Your task to perform on an android device: turn off javascript in the chrome app Image 0: 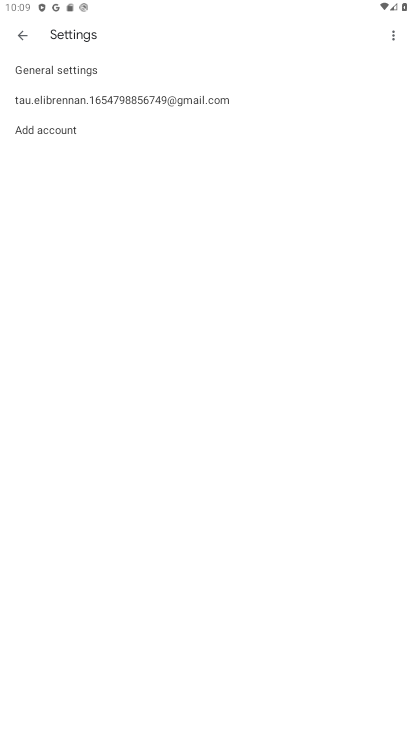
Step 0: press home button
Your task to perform on an android device: turn off javascript in the chrome app Image 1: 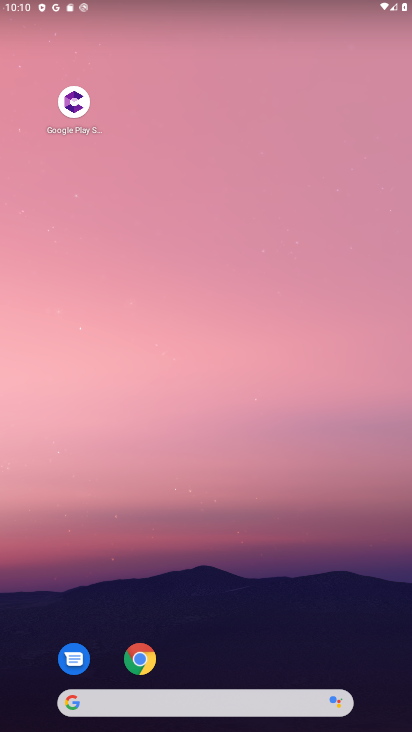
Step 1: drag from (221, 686) to (230, 161)
Your task to perform on an android device: turn off javascript in the chrome app Image 2: 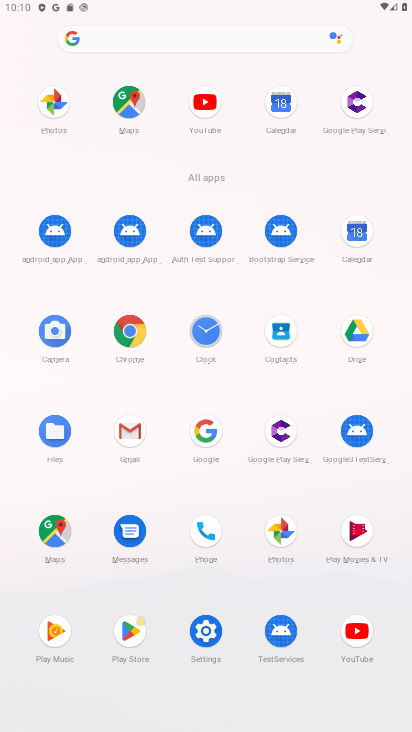
Step 2: click (117, 338)
Your task to perform on an android device: turn off javascript in the chrome app Image 3: 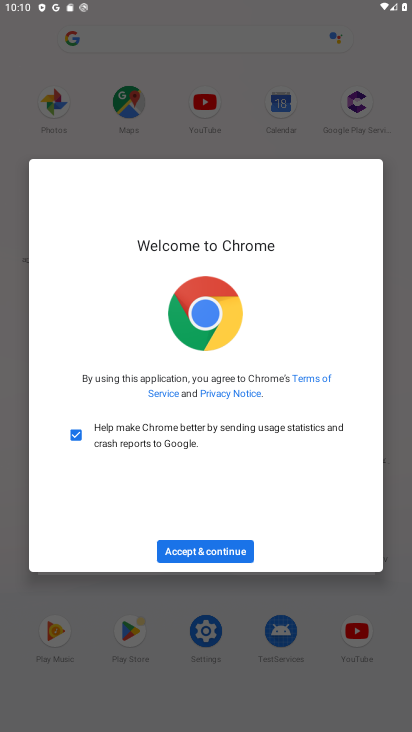
Step 3: click (211, 552)
Your task to perform on an android device: turn off javascript in the chrome app Image 4: 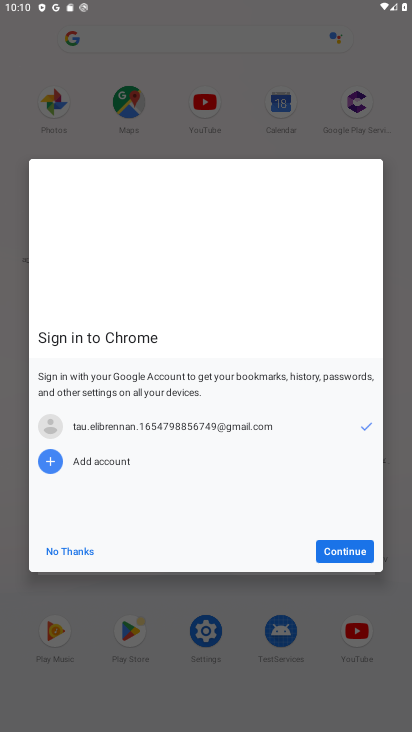
Step 4: click (347, 553)
Your task to perform on an android device: turn off javascript in the chrome app Image 5: 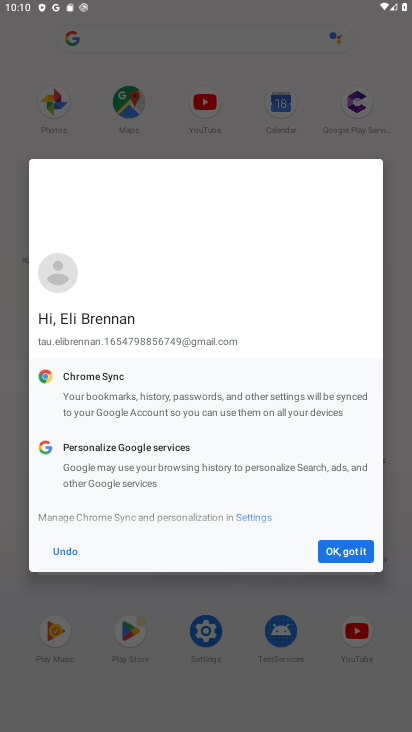
Step 5: click (348, 554)
Your task to perform on an android device: turn off javascript in the chrome app Image 6: 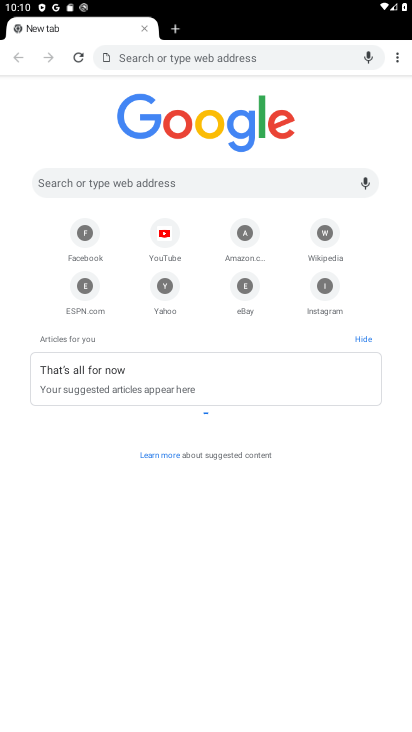
Step 6: click (399, 63)
Your task to perform on an android device: turn off javascript in the chrome app Image 7: 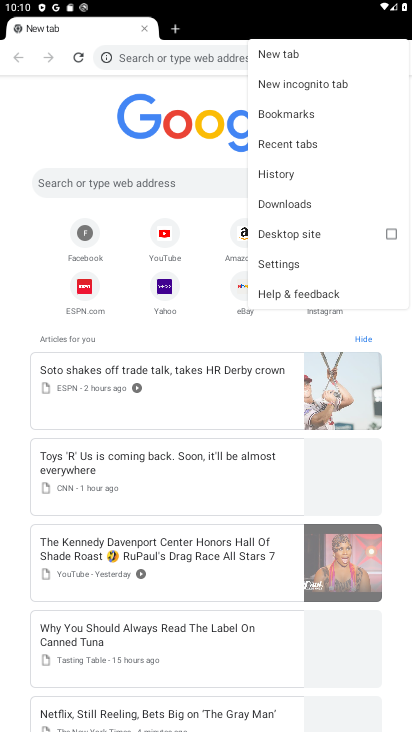
Step 7: click (285, 264)
Your task to perform on an android device: turn off javascript in the chrome app Image 8: 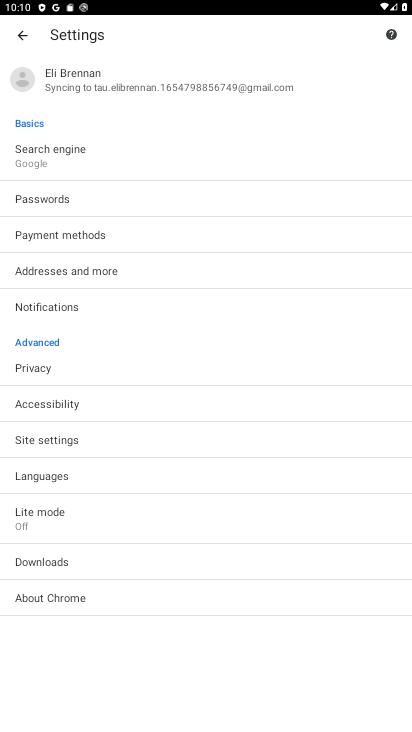
Step 8: click (60, 446)
Your task to perform on an android device: turn off javascript in the chrome app Image 9: 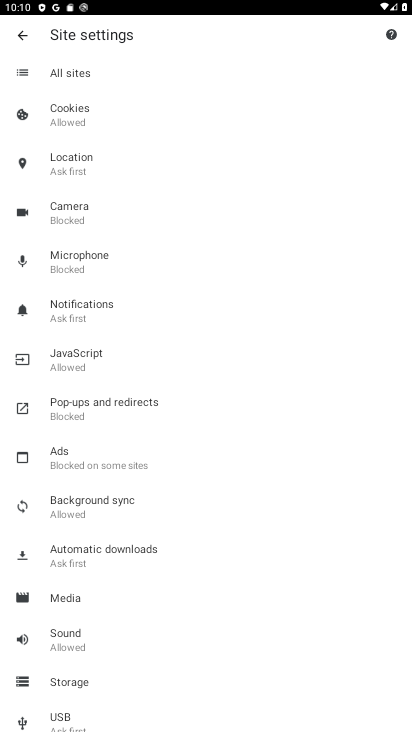
Step 9: click (98, 367)
Your task to perform on an android device: turn off javascript in the chrome app Image 10: 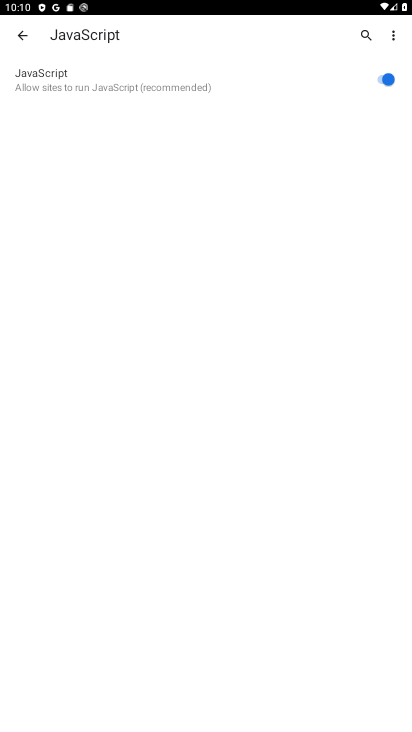
Step 10: click (365, 72)
Your task to perform on an android device: turn off javascript in the chrome app Image 11: 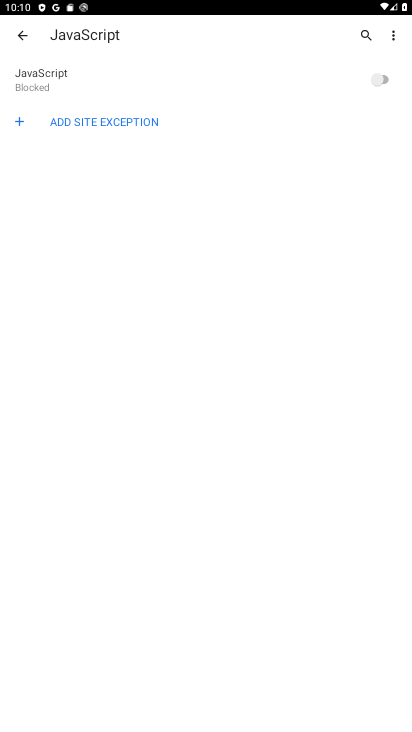
Step 11: task complete